Your task to perform on an android device: find snoozed emails in the gmail app Image 0: 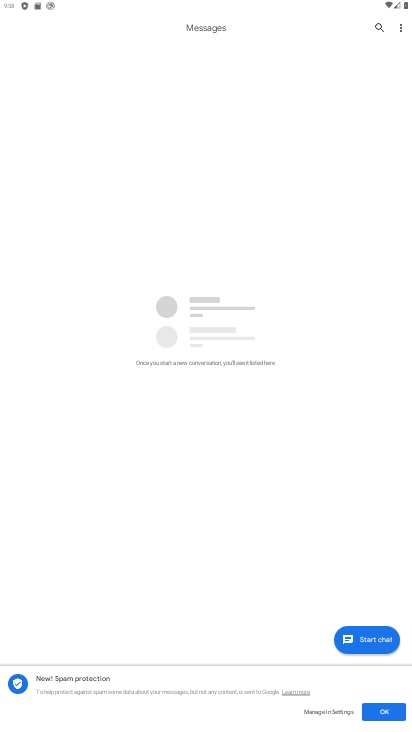
Step 0: press home button
Your task to perform on an android device: find snoozed emails in the gmail app Image 1: 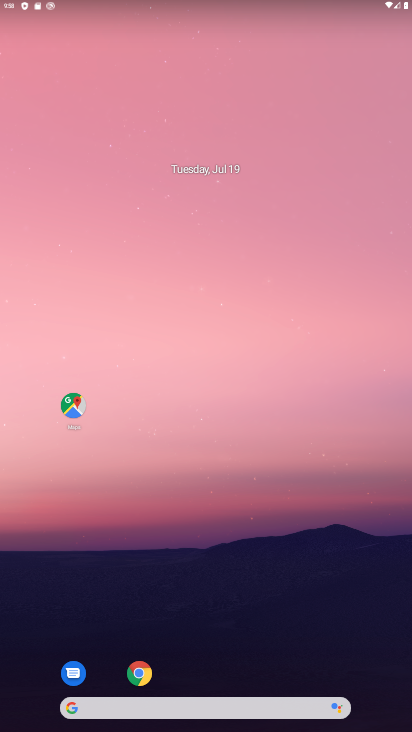
Step 1: drag from (306, 607) to (324, 103)
Your task to perform on an android device: find snoozed emails in the gmail app Image 2: 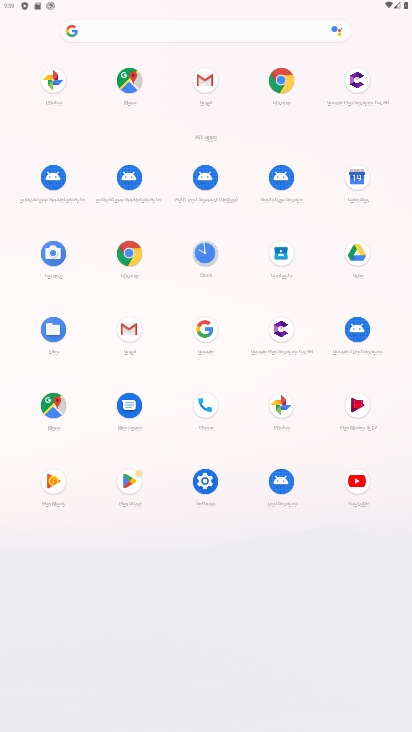
Step 2: click (127, 331)
Your task to perform on an android device: find snoozed emails in the gmail app Image 3: 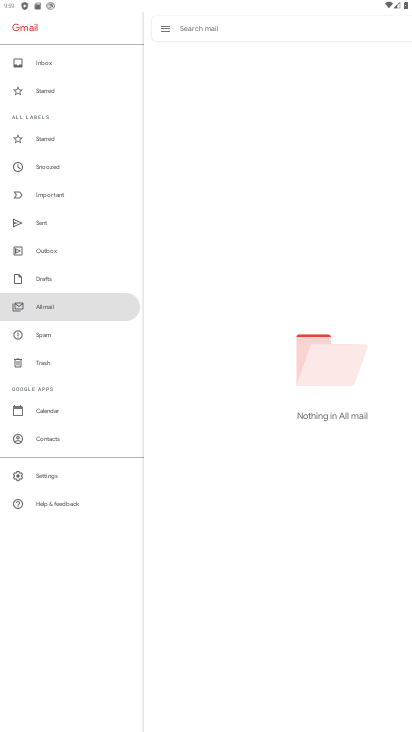
Step 3: click (57, 166)
Your task to perform on an android device: find snoozed emails in the gmail app Image 4: 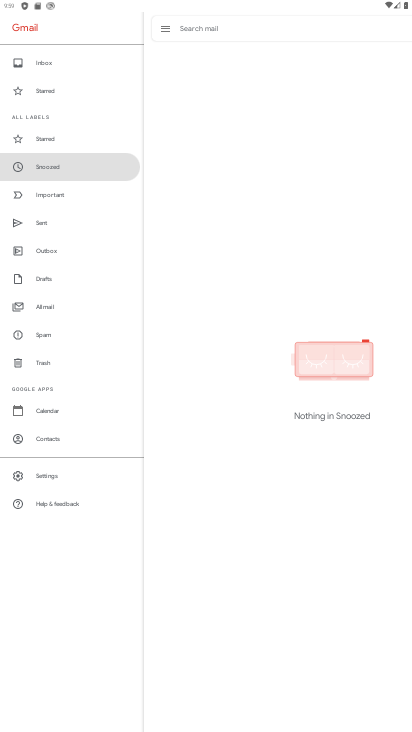
Step 4: task complete